Your task to perform on an android device: all mails in gmail Image 0: 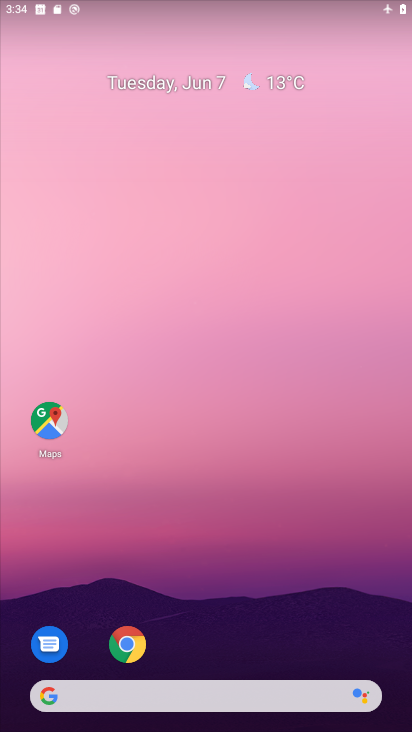
Step 0: drag from (342, 597) to (362, 293)
Your task to perform on an android device: all mails in gmail Image 1: 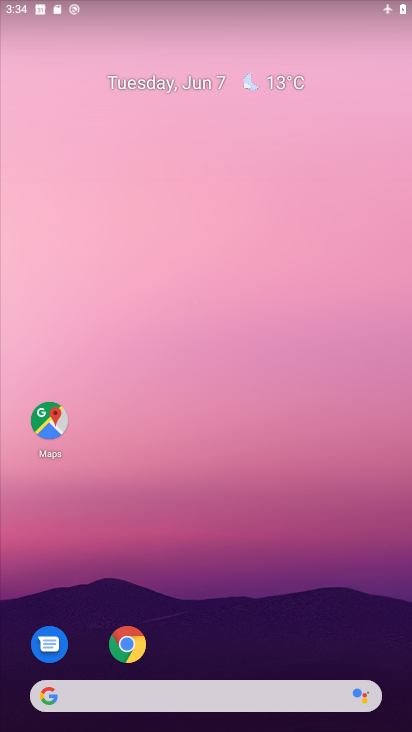
Step 1: drag from (310, 602) to (313, 225)
Your task to perform on an android device: all mails in gmail Image 2: 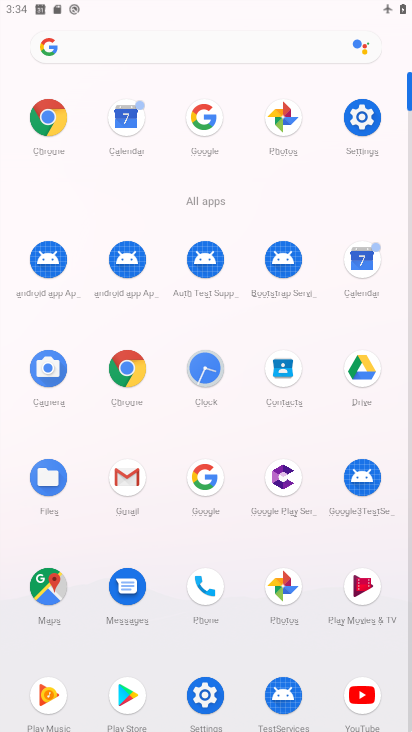
Step 2: click (133, 487)
Your task to perform on an android device: all mails in gmail Image 3: 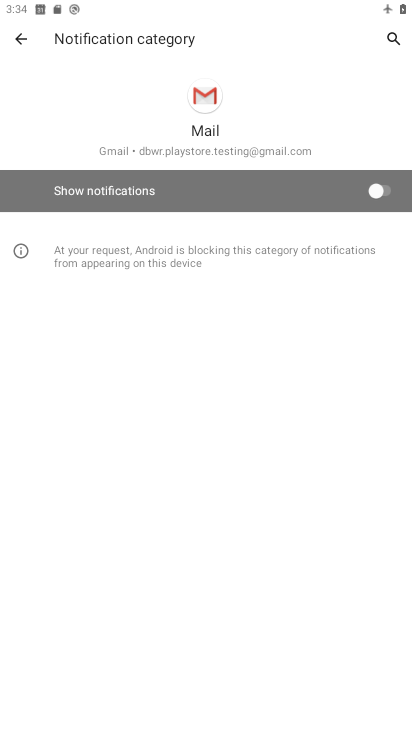
Step 3: press back button
Your task to perform on an android device: all mails in gmail Image 4: 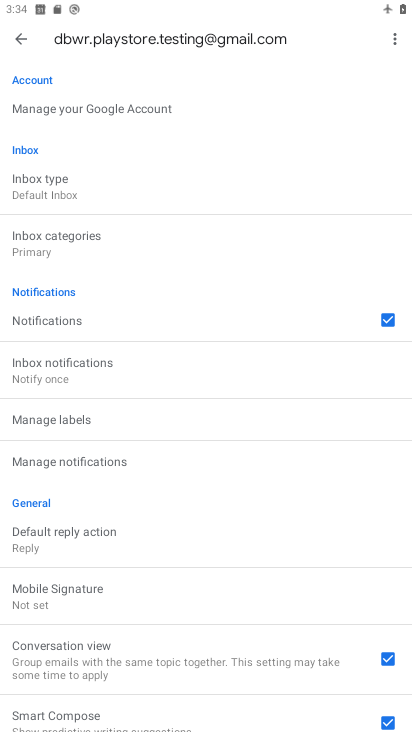
Step 4: press back button
Your task to perform on an android device: all mails in gmail Image 5: 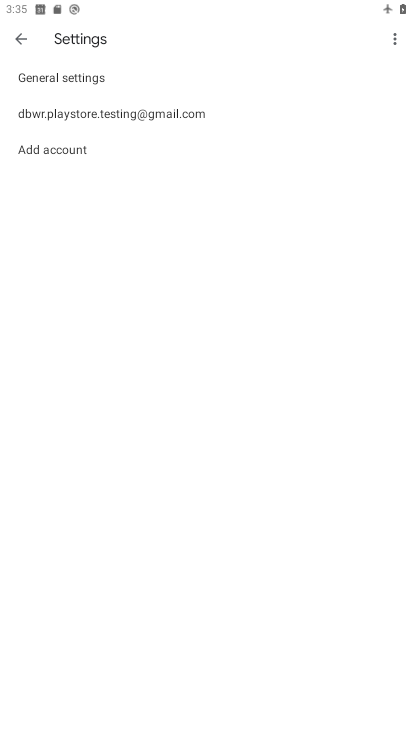
Step 5: press back button
Your task to perform on an android device: all mails in gmail Image 6: 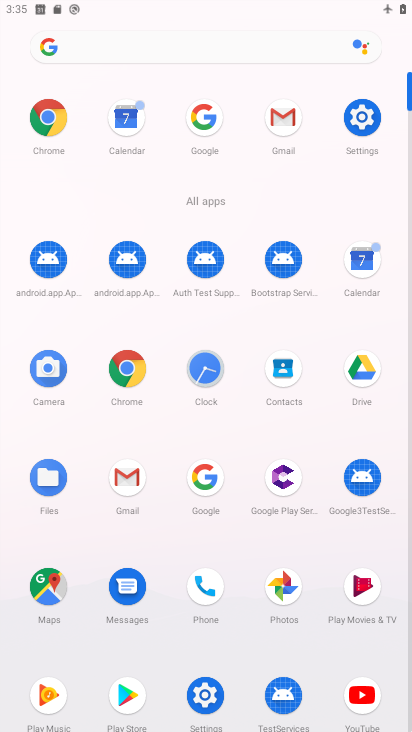
Step 6: click (126, 483)
Your task to perform on an android device: all mails in gmail Image 7: 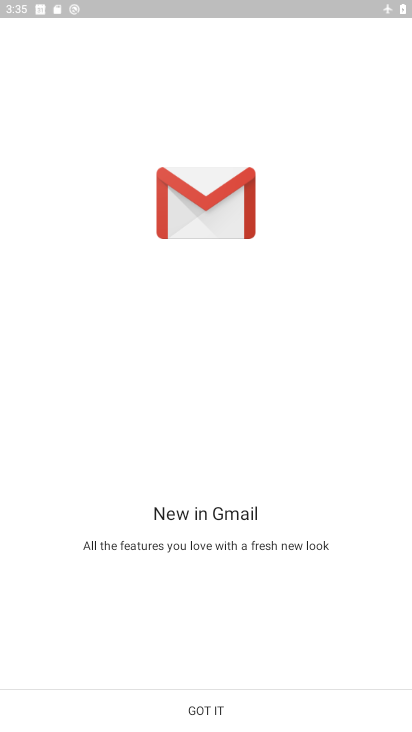
Step 7: click (231, 713)
Your task to perform on an android device: all mails in gmail Image 8: 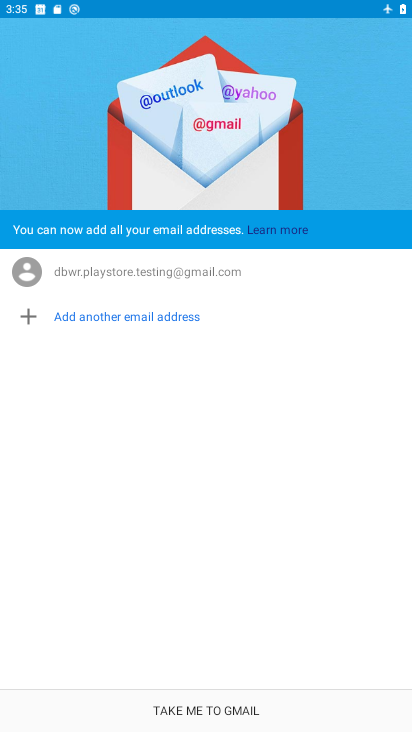
Step 8: click (231, 713)
Your task to perform on an android device: all mails in gmail Image 9: 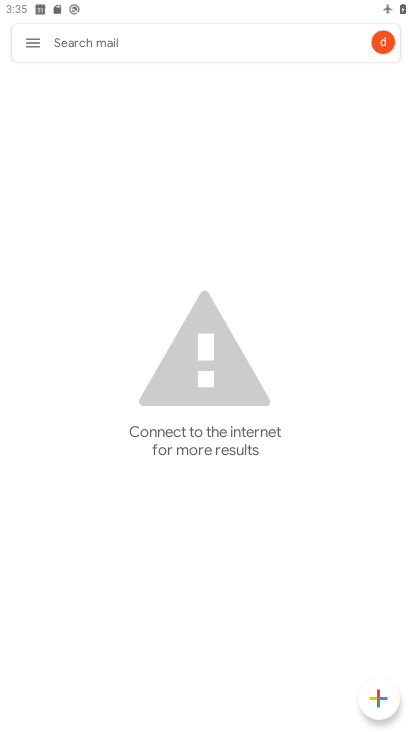
Step 9: click (28, 46)
Your task to perform on an android device: all mails in gmail Image 10: 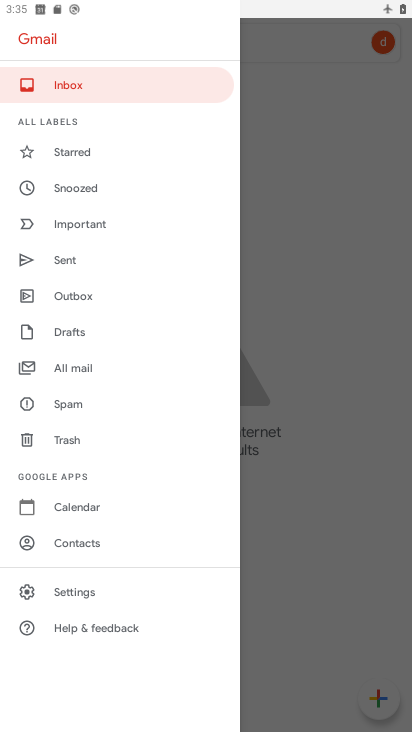
Step 10: drag from (164, 457) to (152, 274)
Your task to perform on an android device: all mails in gmail Image 11: 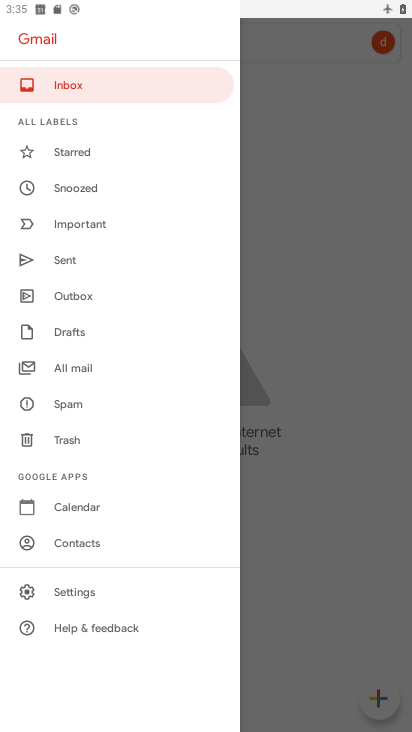
Step 11: drag from (142, 239) to (145, 415)
Your task to perform on an android device: all mails in gmail Image 12: 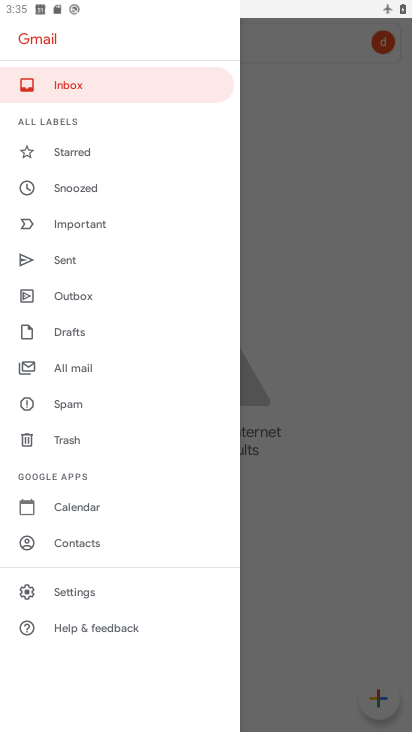
Step 12: click (94, 372)
Your task to perform on an android device: all mails in gmail Image 13: 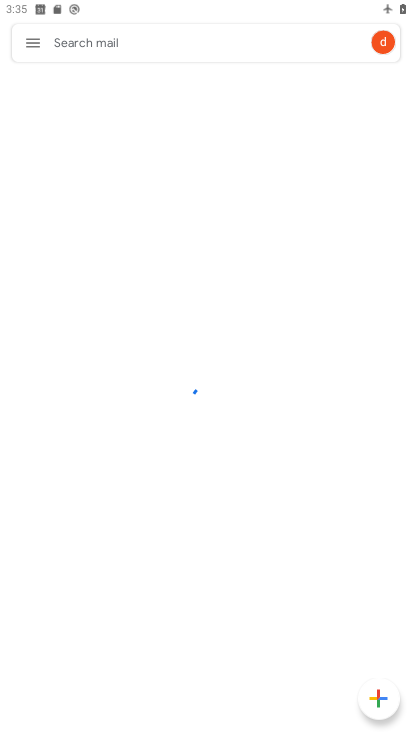
Step 13: task complete